Your task to perform on an android device: What's the price of the Galaxy phone on eBay? Image 0: 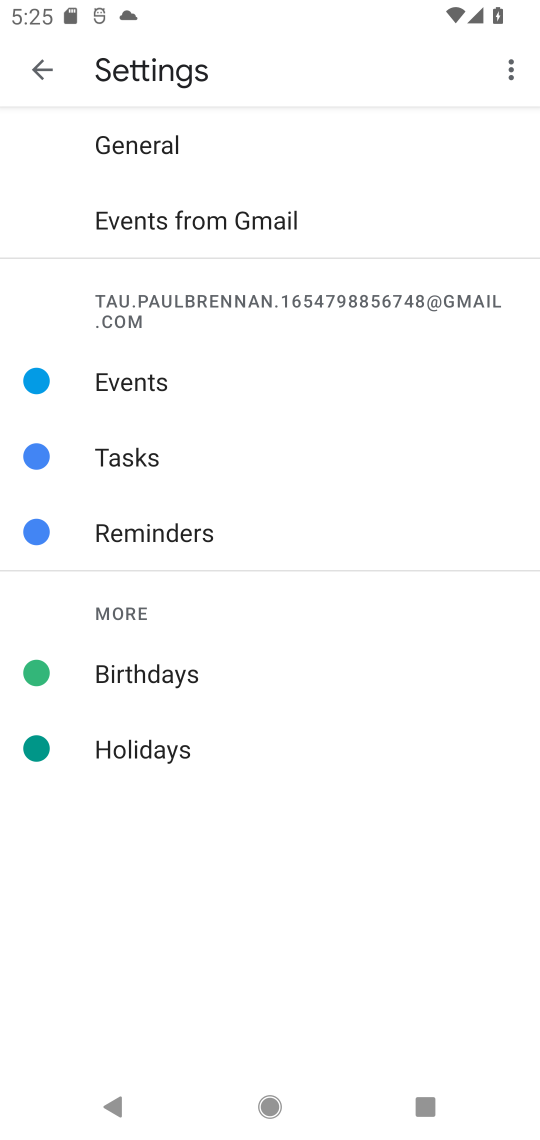
Step 0: press home button
Your task to perform on an android device: What's the price of the Galaxy phone on eBay? Image 1: 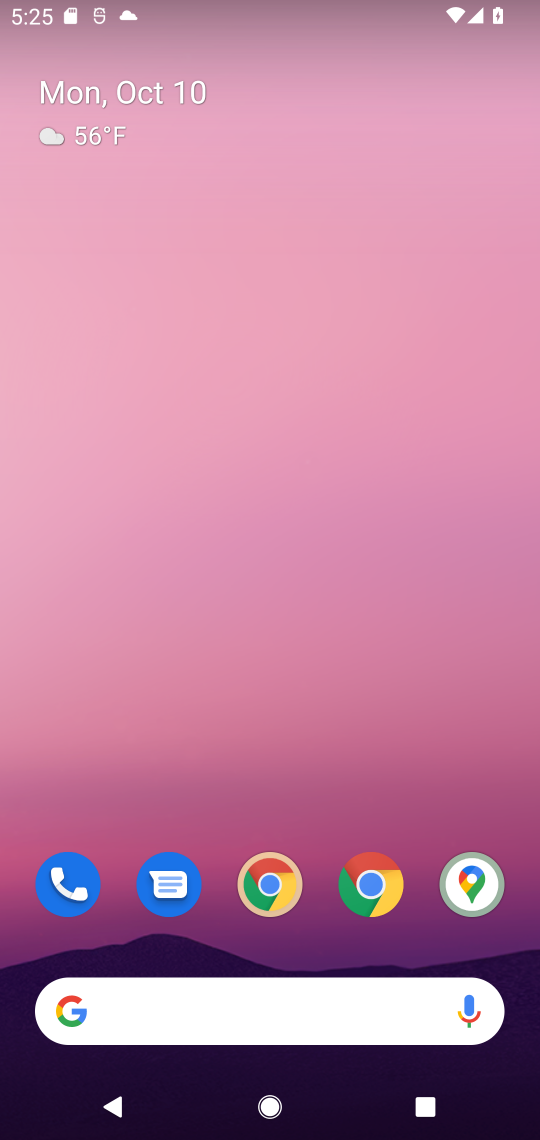
Step 1: drag from (423, 1129) to (516, 1119)
Your task to perform on an android device: What's the price of the Galaxy phone on eBay? Image 2: 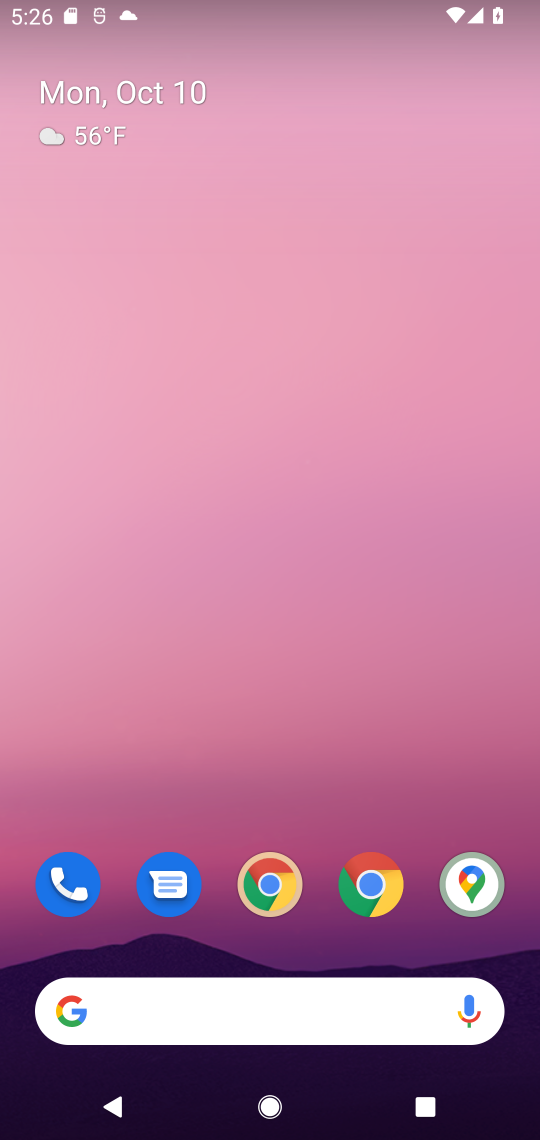
Step 2: click (370, 889)
Your task to perform on an android device: What's the price of the Galaxy phone on eBay? Image 3: 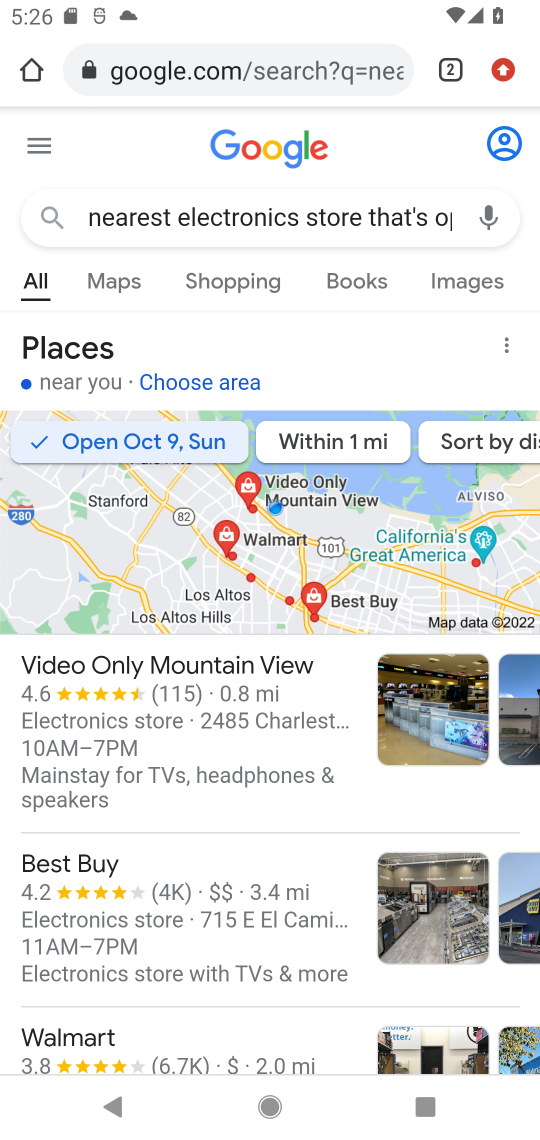
Step 3: click (277, 218)
Your task to perform on an android device: What's the price of the Galaxy phone on eBay? Image 4: 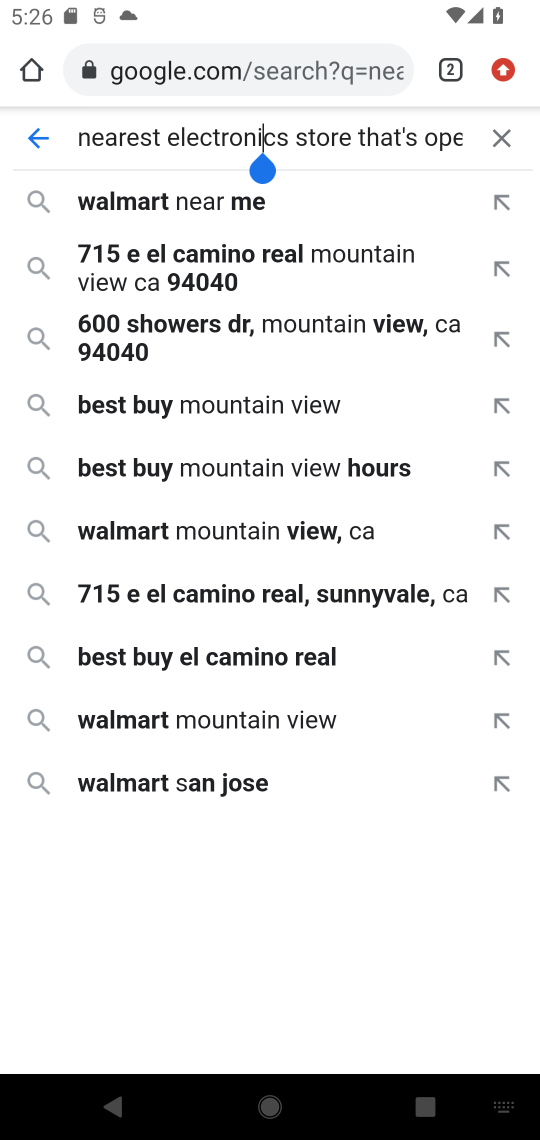
Step 4: click (500, 148)
Your task to perform on an android device: What's the price of the Galaxy phone on eBay? Image 5: 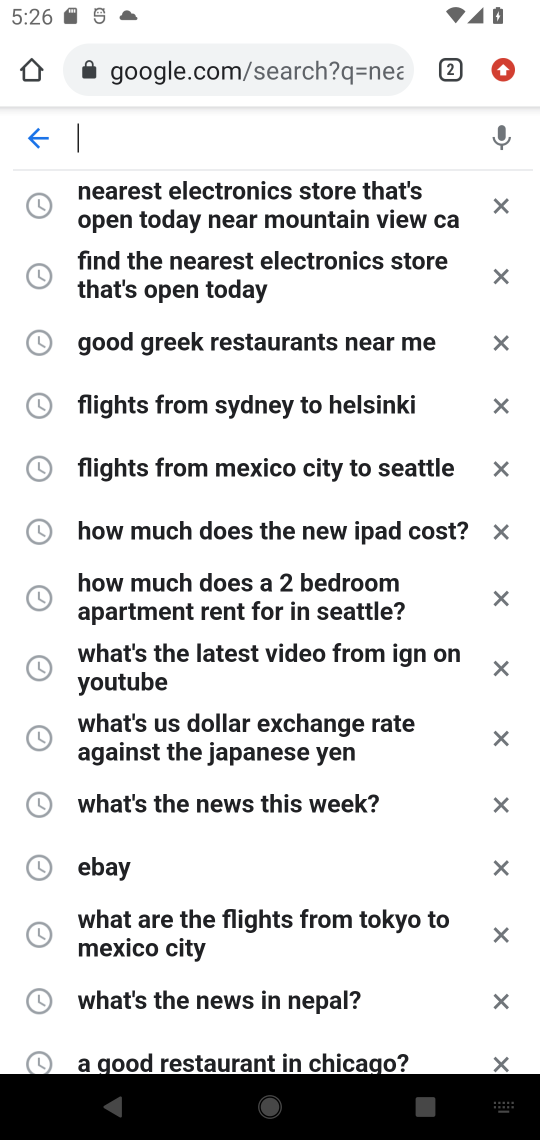
Step 5: type "What's the price of the Galaxy phone on eBay?"
Your task to perform on an android device: What's the price of the Galaxy phone on eBay? Image 6: 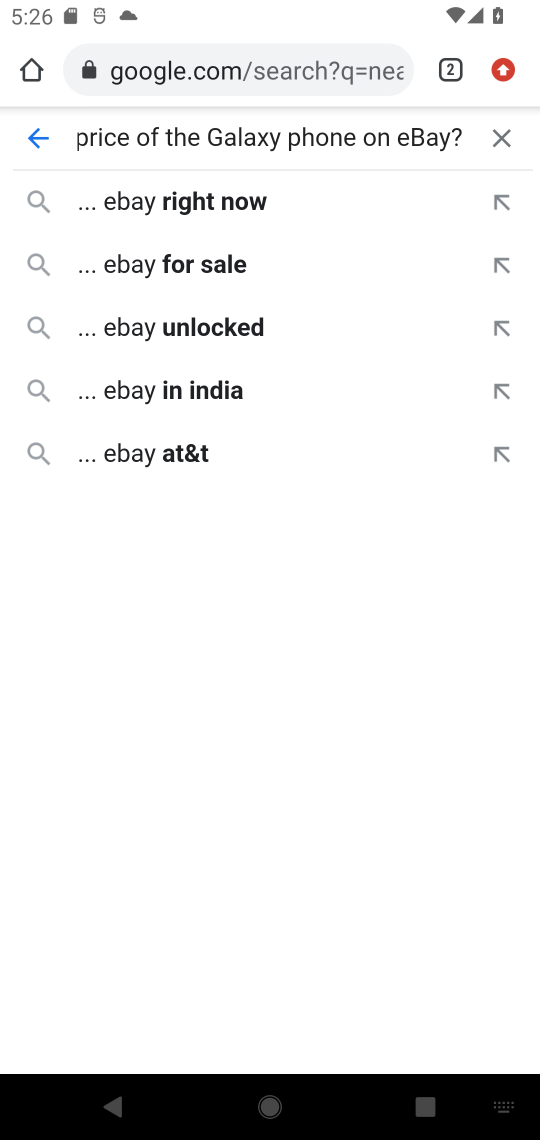
Step 6: click (210, 215)
Your task to perform on an android device: What's the price of the Galaxy phone on eBay? Image 7: 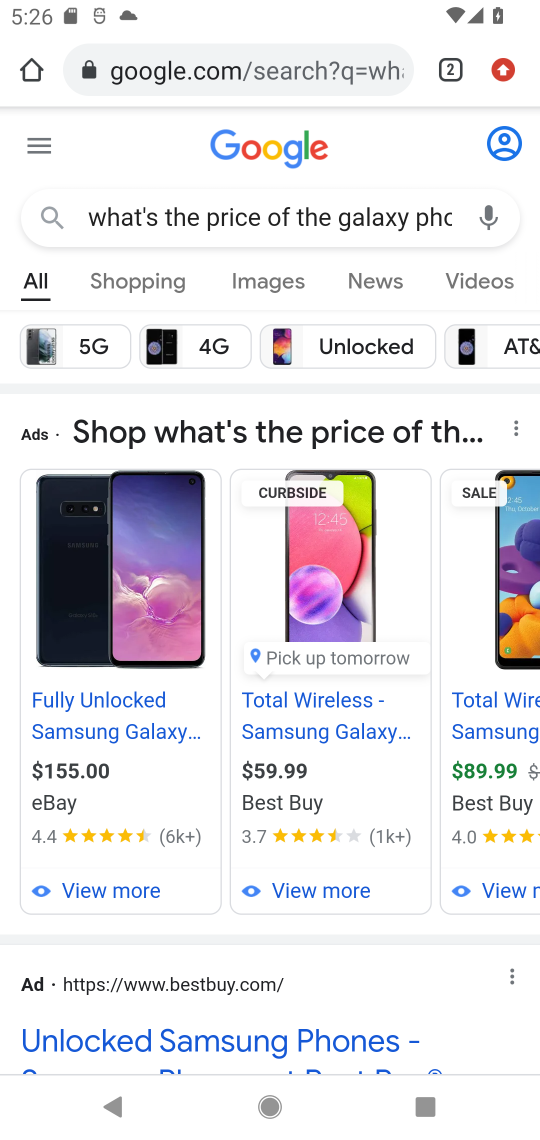
Step 7: click (152, 638)
Your task to perform on an android device: What's the price of the Galaxy phone on eBay? Image 8: 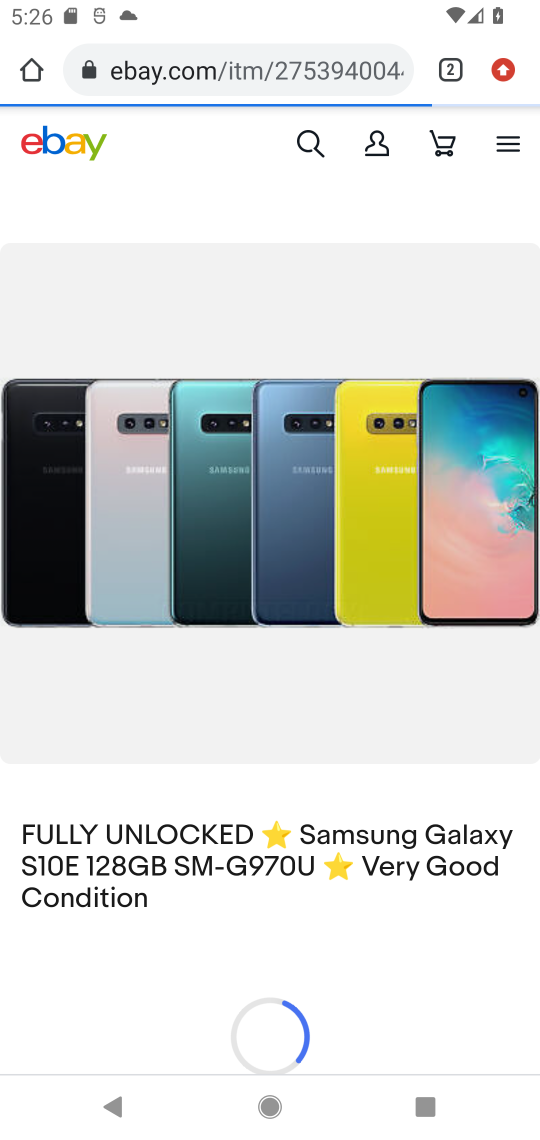
Step 8: task complete